Your task to perform on an android device: What's the weather going to be tomorrow? Image 0: 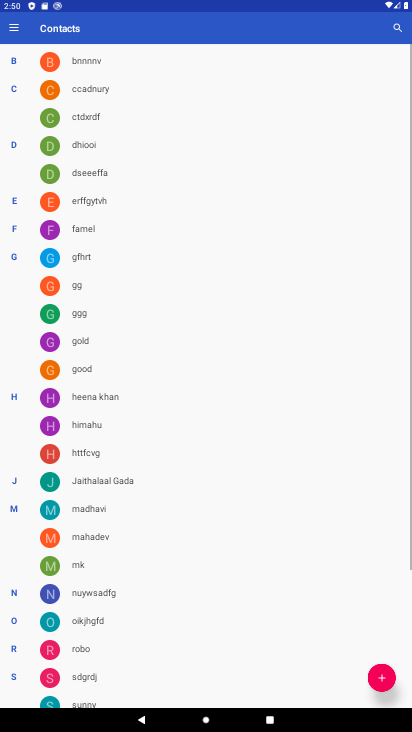
Step 0: drag from (296, 566) to (283, 286)
Your task to perform on an android device: What's the weather going to be tomorrow? Image 1: 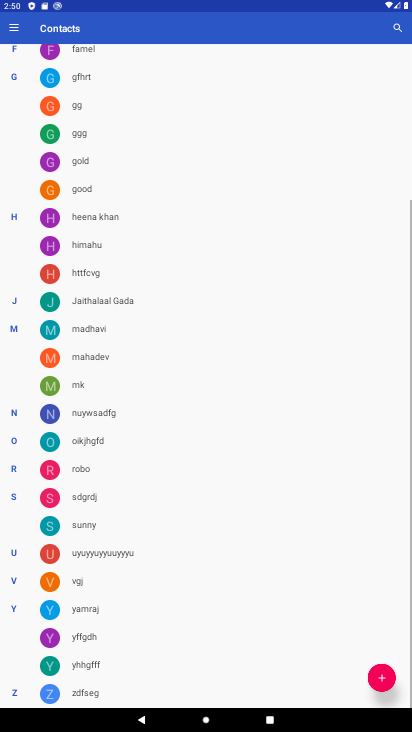
Step 1: press home button
Your task to perform on an android device: What's the weather going to be tomorrow? Image 2: 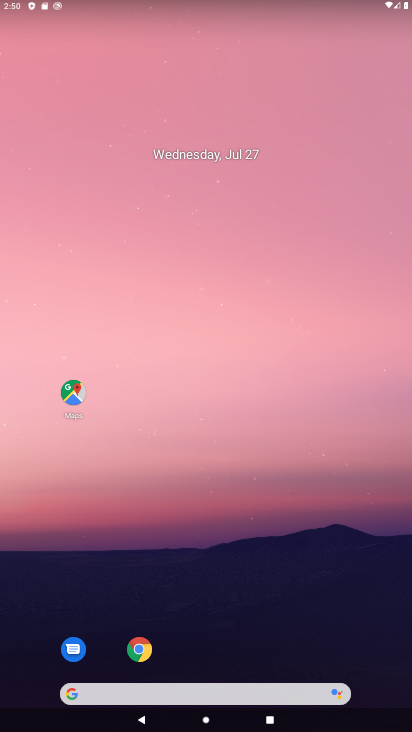
Step 2: drag from (247, 608) to (239, 38)
Your task to perform on an android device: What's the weather going to be tomorrow? Image 3: 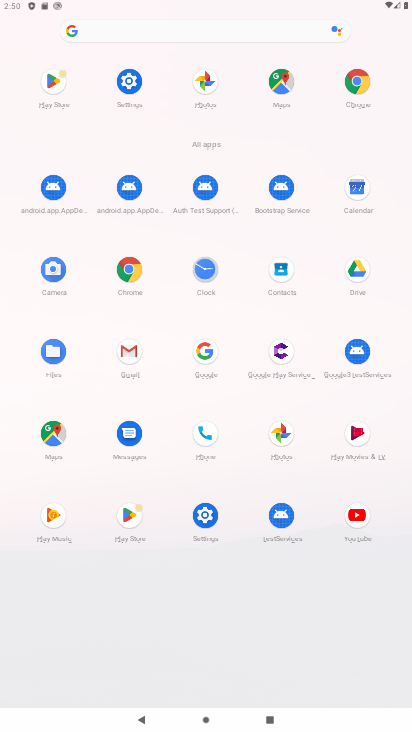
Step 3: click (127, 274)
Your task to perform on an android device: What's the weather going to be tomorrow? Image 4: 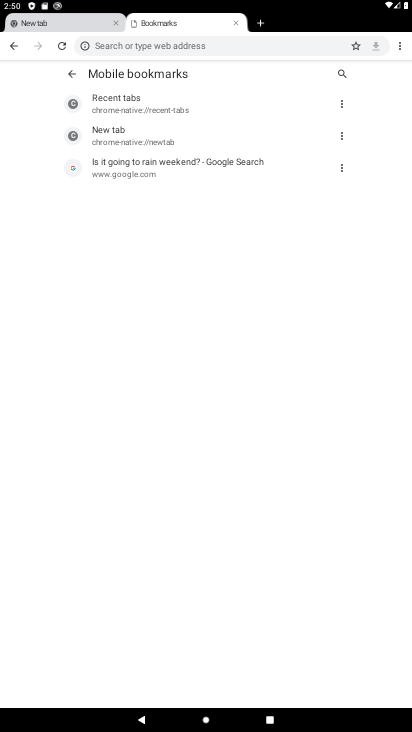
Step 4: click (163, 44)
Your task to perform on an android device: What's the weather going to be tomorrow? Image 5: 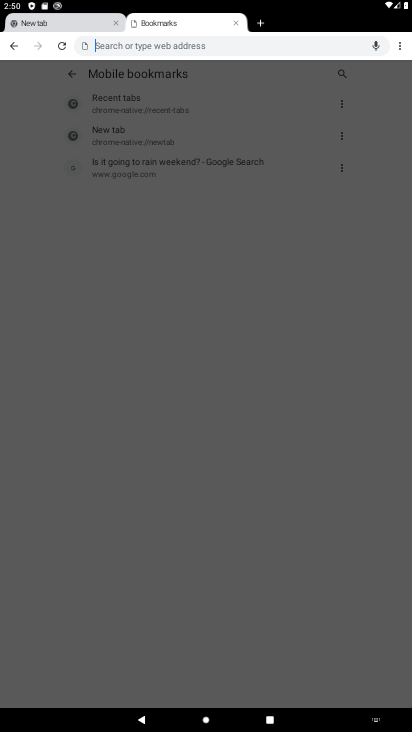
Step 5: type "What's the weather going to be tomorrow?"
Your task to perform on an android device: What's the weather going to be tomorrow? Image 6: 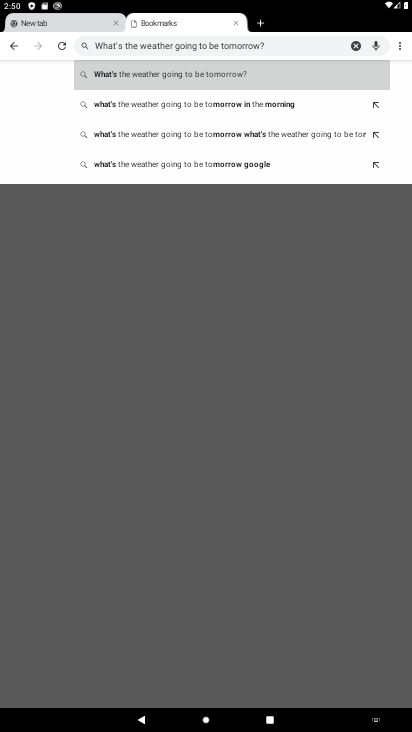
Step 6: click (148, 75)
Your task to perform on an android device: What's the weather going to be tomorrow? Image 7: 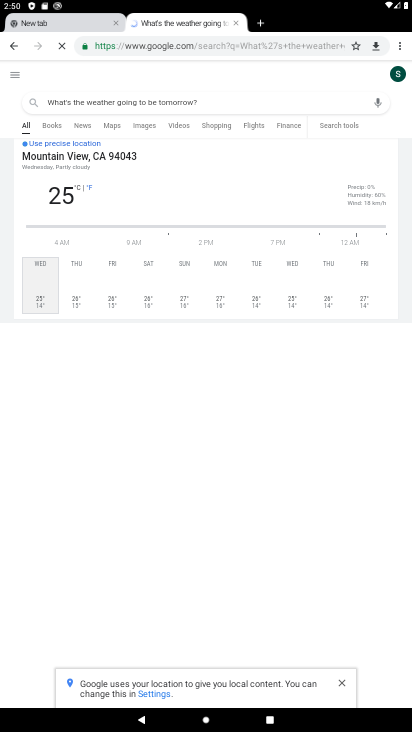
Step 7: task complete